Your task to perform on an android device: Open display settings Image 0: 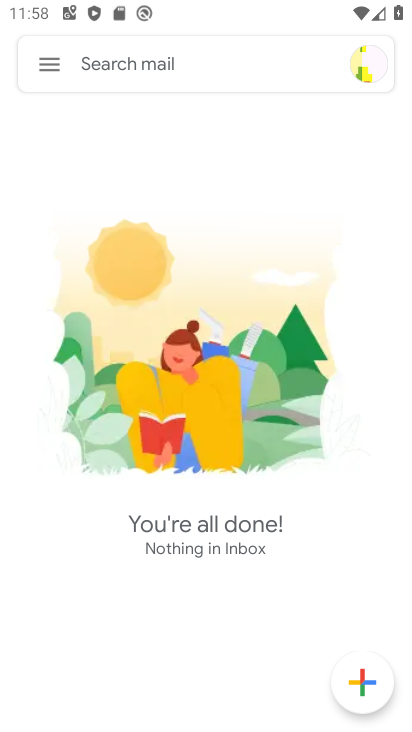
Step 0: press home button
Your task to perform on an android device: Open display settings Image 1: 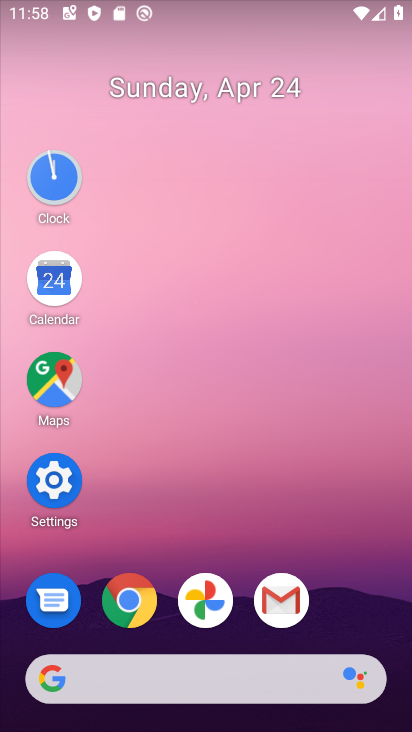
Step 1: click (54, 476)
Your task to perform on an android device: Open display settings Image 2: 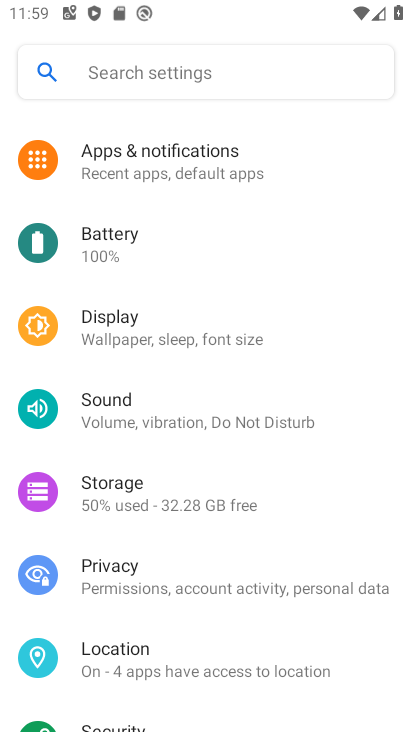
Step 2: click (110, 324)
Your task to perform on an android device: Open display settings Image 3: 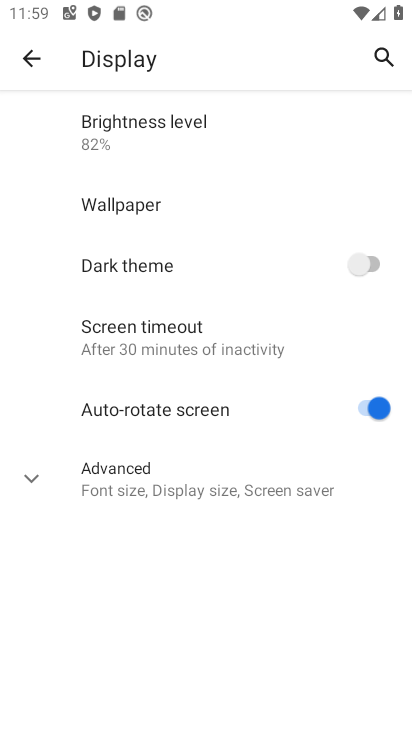
Step 3: task complete